Your task to perform on an android device: toggle show notifications on the lock screen Image 0: 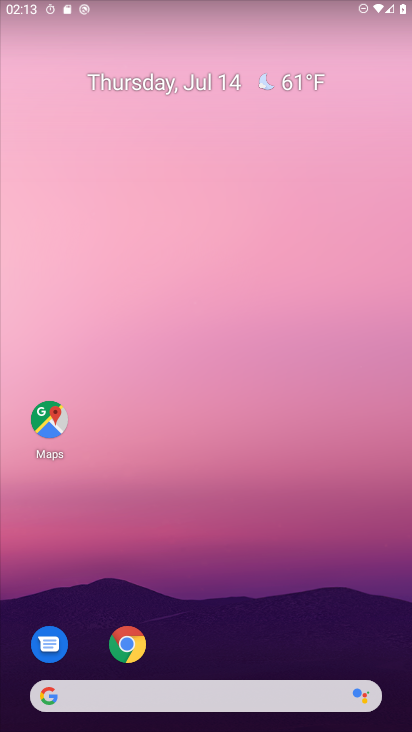
Step 0: drag from (328, 616) to (303, 147)
Your task to perform on an android device: toggle show notifications on the lock screen Image 1: 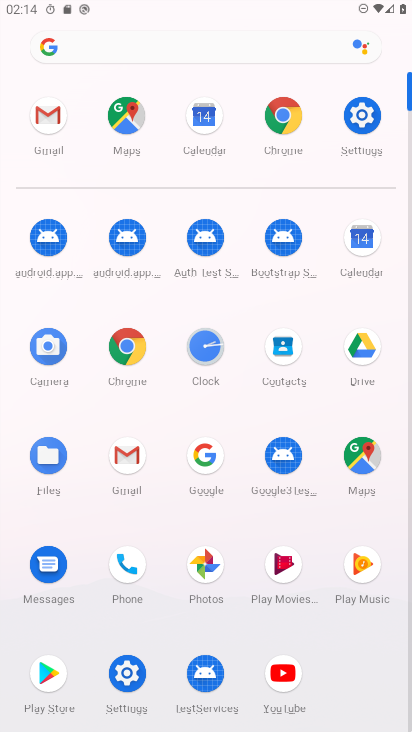
Step 1: click (355, 115)
Your task to perform on an android device: toggle show notifications on the lock screen Image 2: 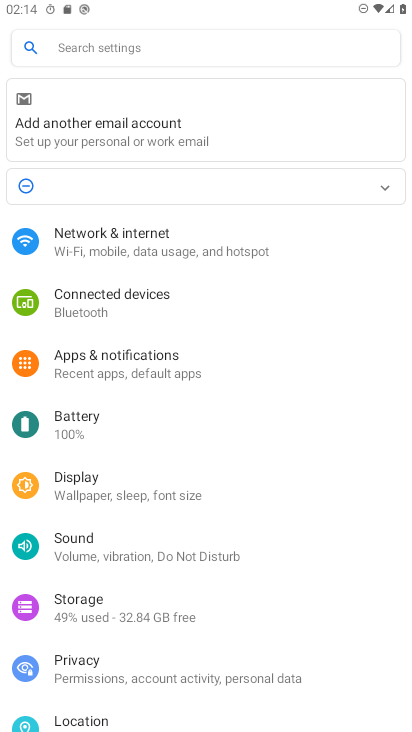
Step 2: click (156, 354)
Your task to perform on an android device: toggle show notifications on the lock screen Image 3: 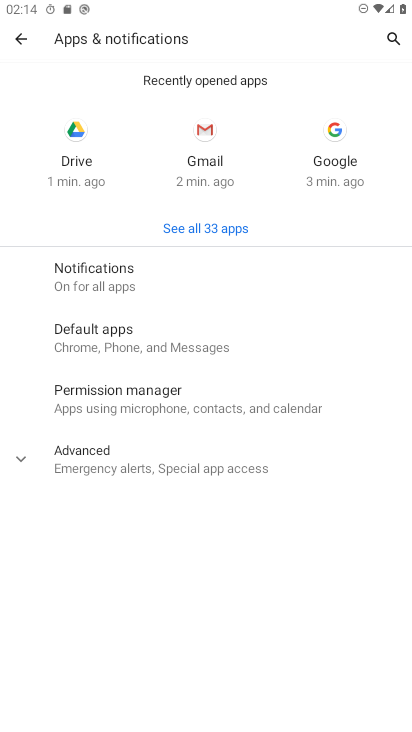
Step 3: click (167, 275)
Your task to perform on an android device: toggle show notifications on the lock screen Image 4: 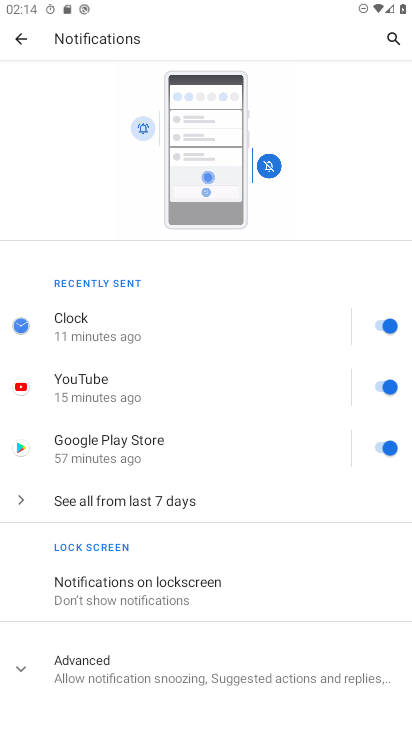
Step 4: click (192, 669)
Your task to perform on an android device: toggle show notifications on the lock screen Image 5: 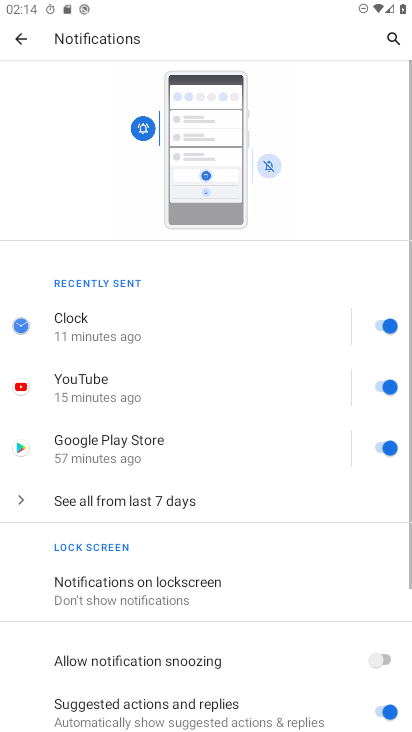
Step 5: click (208, 591)
Your task to perform on an android device: toggle show notifications on the lock screen Image 6: 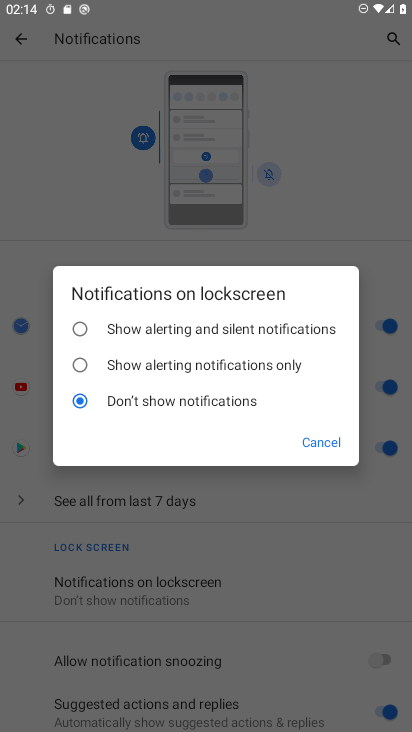
Step 6: click (174, 359)
Your task to perform on an android device: toggle show notifications on the lock screen Image 7: 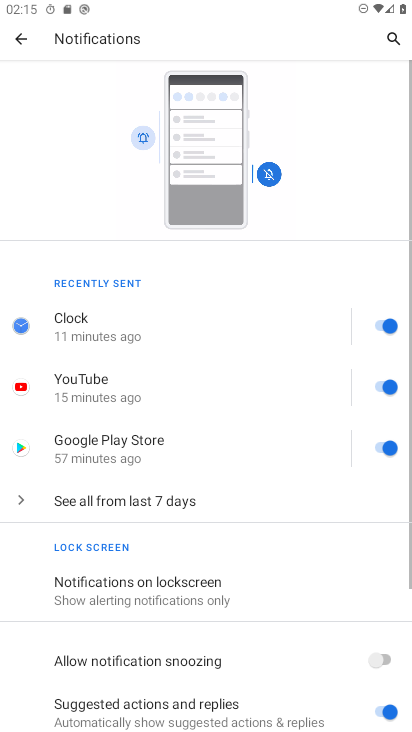
Step 7: task complete